Your task to perform on an android device: find photos in the google photos app Image 0: 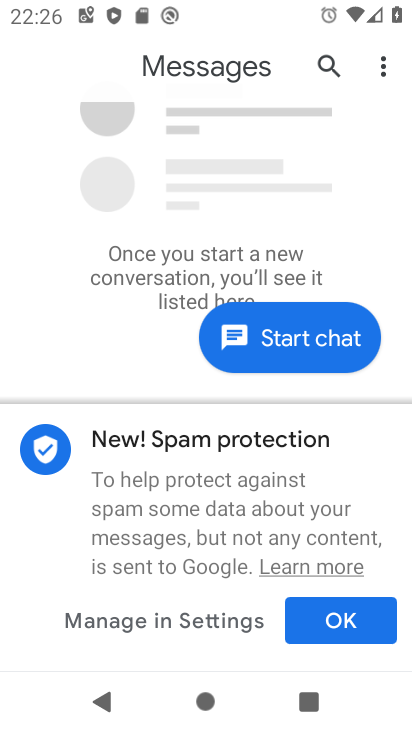
Step 0: press home button
Your task to perform on an android device: find photos in the google photos app Image 1: 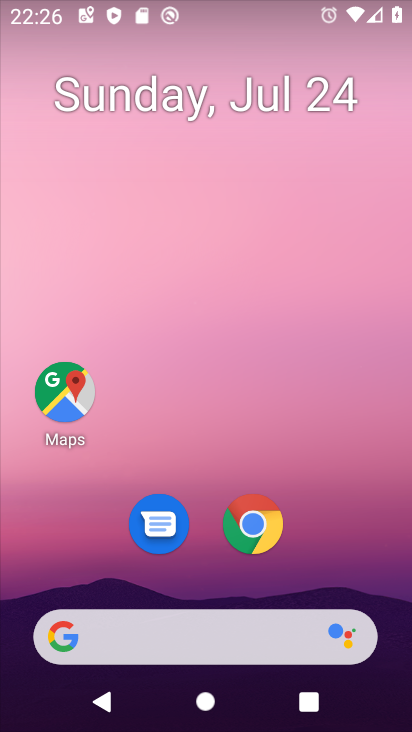
Step 1: drag from (175, 651) to (161, 112)
Your task to perform on an android device: find photos in the google photos app Image 2: 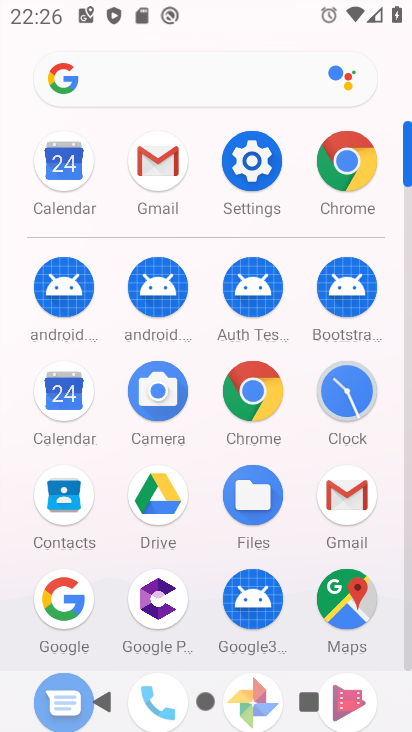
Step 2: drag from (191, 650) to (164, 166)
Your task to perform on an android device: find photos in the google photos app Image 3: 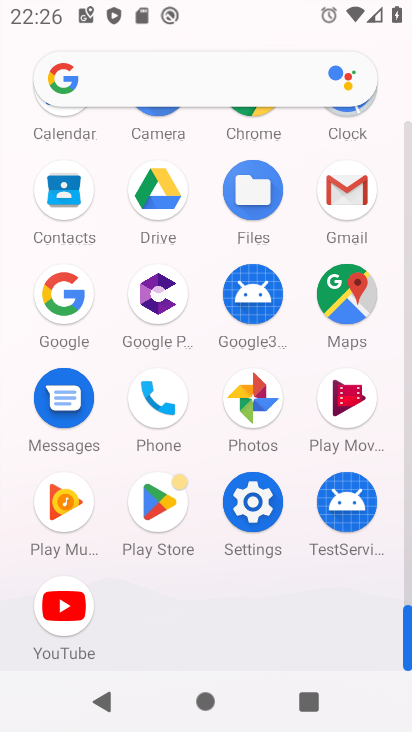
Step 3: click (255, 410)
Your task to perform on an android device: find photos in the google photos app Image 4: 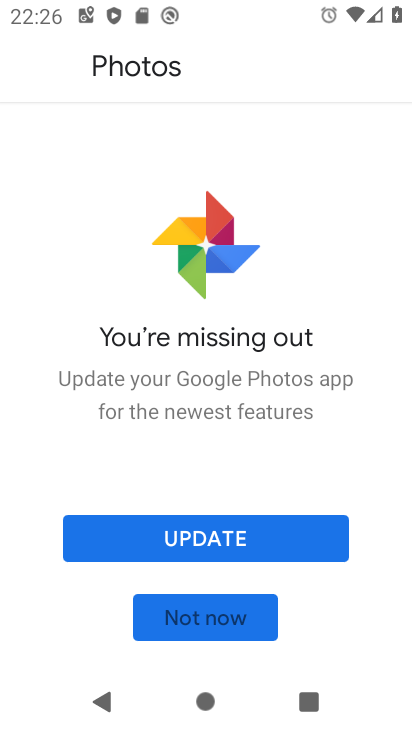
Step 4: click (200, 634)
Your task to perform on an android device: find photos in the google photos app Image 5: 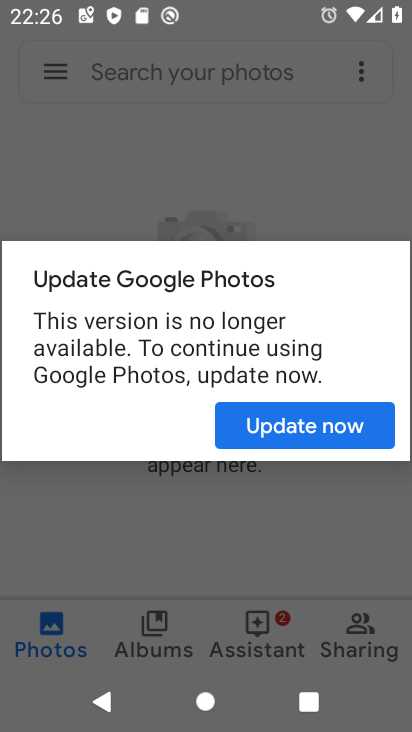
Step 5: click (304, 445)
Your task to perform on an android device: find photos in the google photos app Image 6: 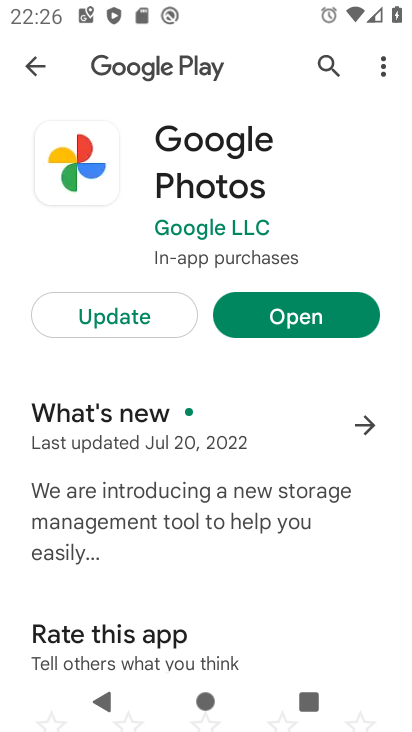
Step 6: click (294, 312)
Your task to perform on an android device: find photos in the google photos app Image 7: 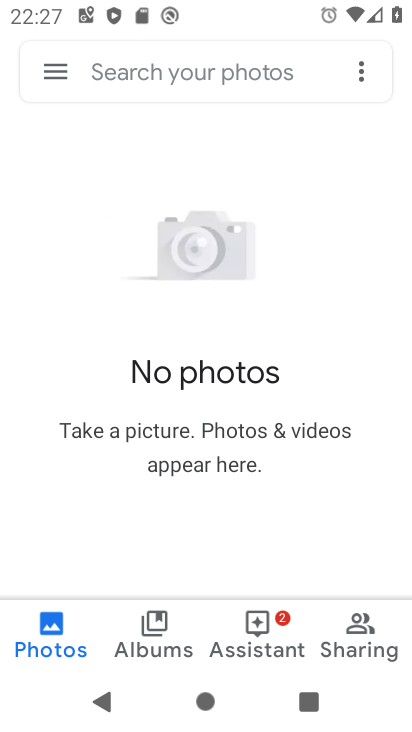
Step 7: task complete